Your task to perform on an android device: allow cookies in the chrome app Image 0: 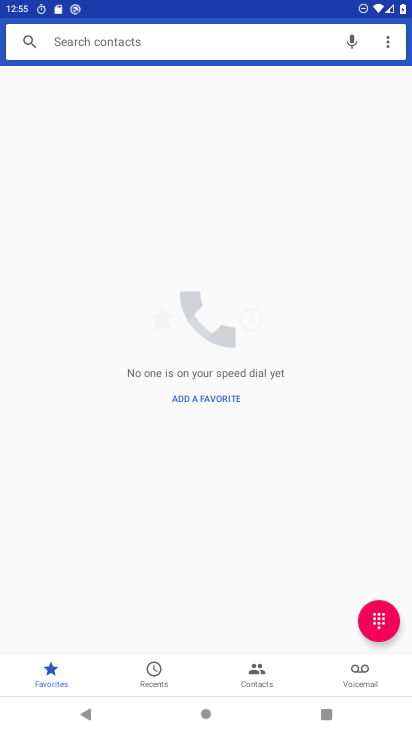
Step 0: press home button
Your task to perform on an android device: allow cookies in the chrome app Image 1: 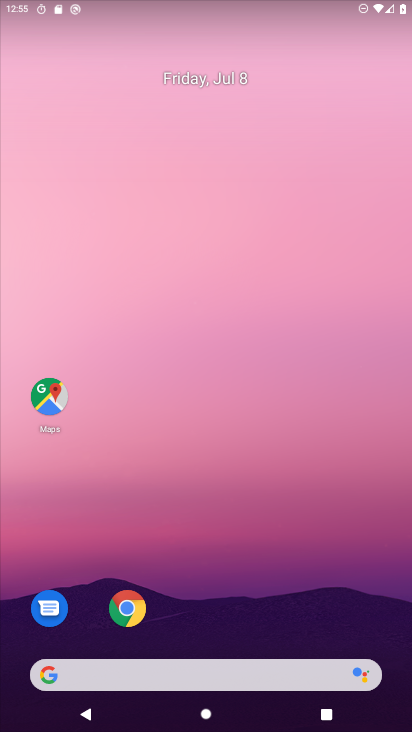
Step 1: drag from (236, 722) to (220, 644)
Your task to perform on an android device: allow cookies in the chrome app Image 2: 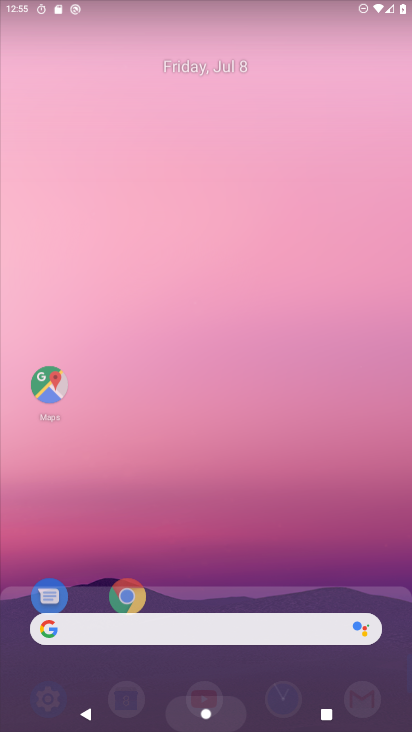
Step 2: drag from (259, 127) to (263, 47)
Your task to perform on an android device: allow cookies in the chrome app Image 3: 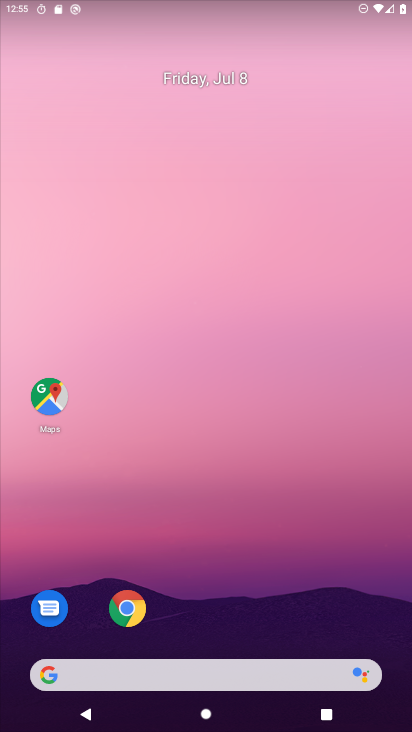
Step 3: drag from (244, 715) to (242, 663)
Your task to perform on an android device: allow cookies in the chrome app Image 4: 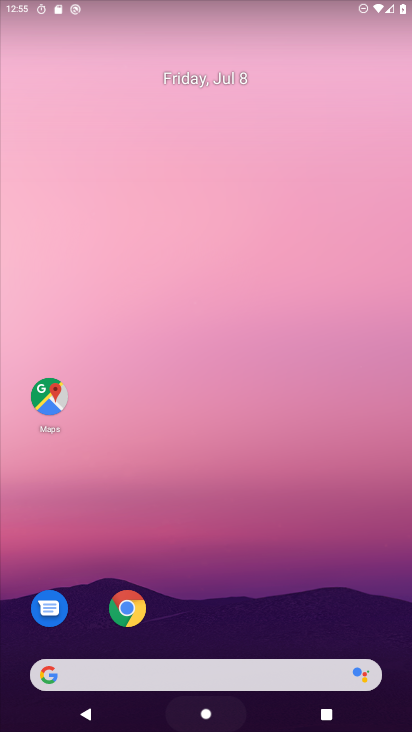
Step 4: click (260, 64)
Your task to perform on an android device: allow cookies in the chrome app Image 5: 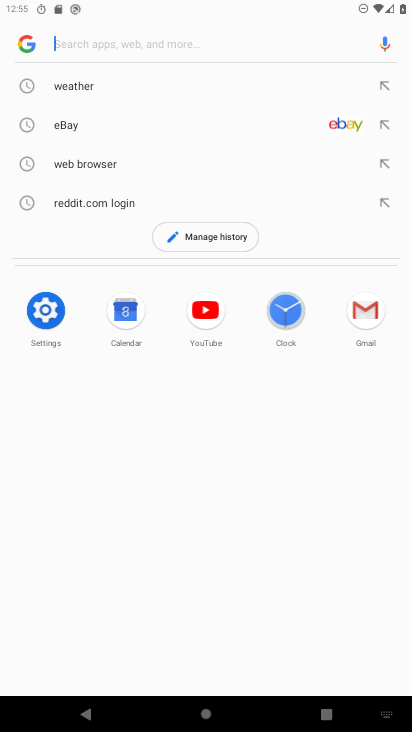
Step 5: press home button
Your task to perform on an android device: allow cookies in the chrome app Image 6: 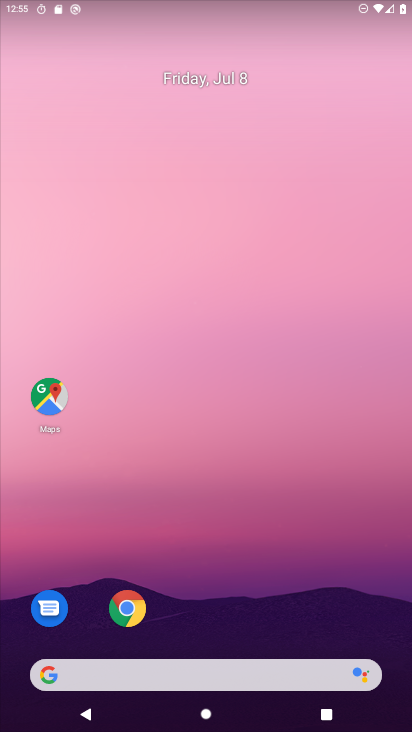
Step 6: click (127, 605)
Your task to perform on an android device: allow cookies in the chrome app Image 7: 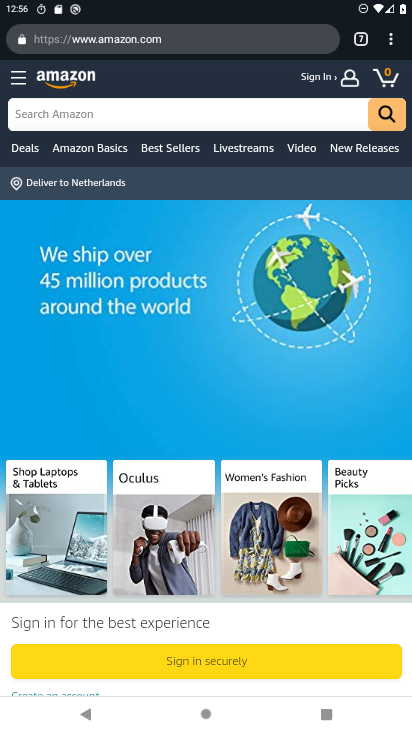
Step 7: click (391, 42)
Your task to perform on an android device: allow cookies in the chrome app Image 8: 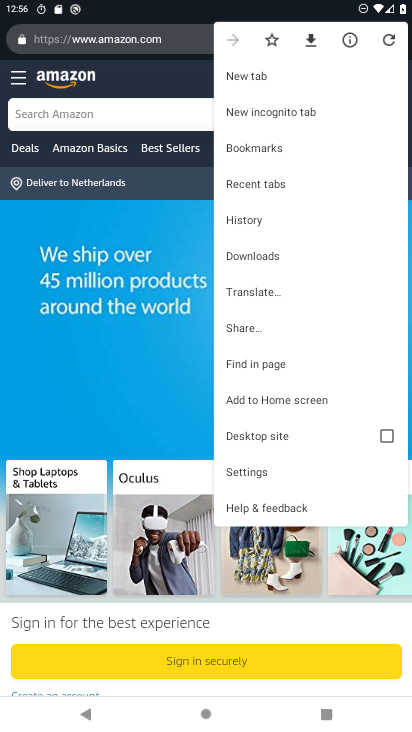
Step 8: click (251, 469)
Your task to perform on an android device: allow cookies in the chrome app Image 9: 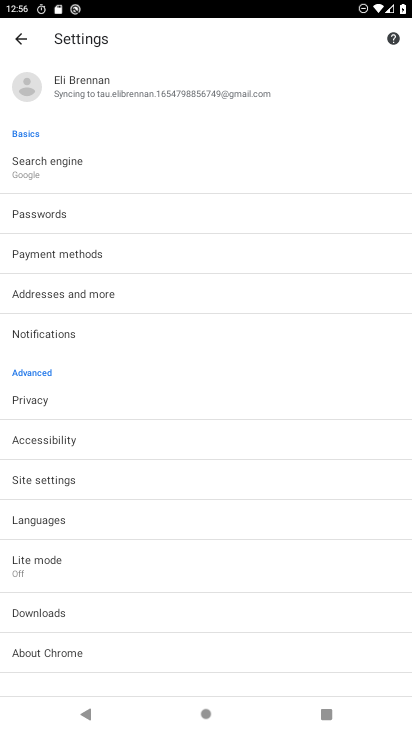
Step 9: drag from (71, 587) to (69, 317)
Your task to perform on an android device: allow cookies in the chrome app Image 10: 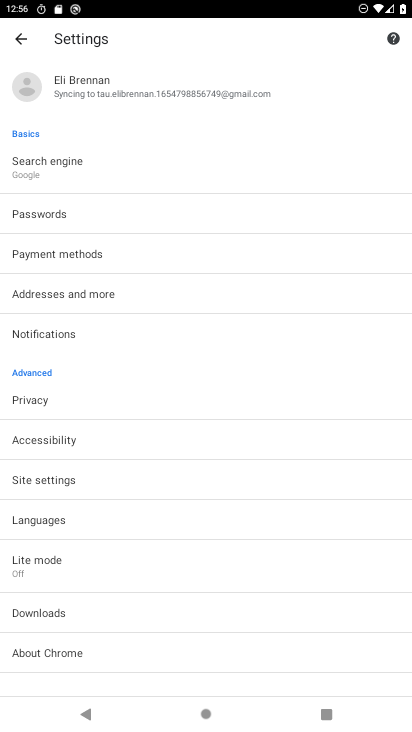
Step 10: click (74, 479)
Your task to perform on an android device: allow cookies in the chrome app Image 11: 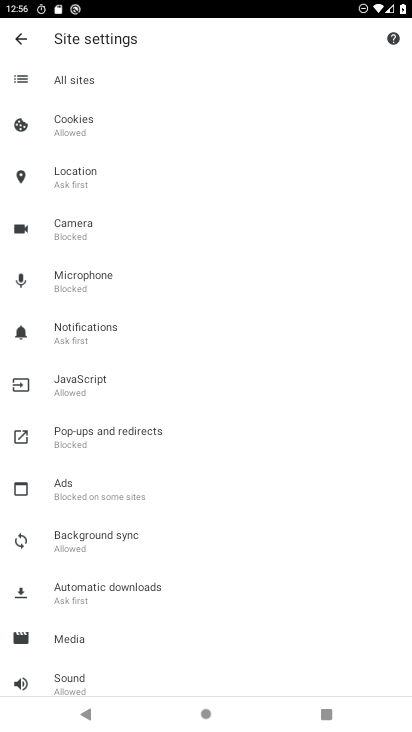
Step 11: click (84, 115)
Your task to perform on an android device: allow cookies in the chrome app Image 12: 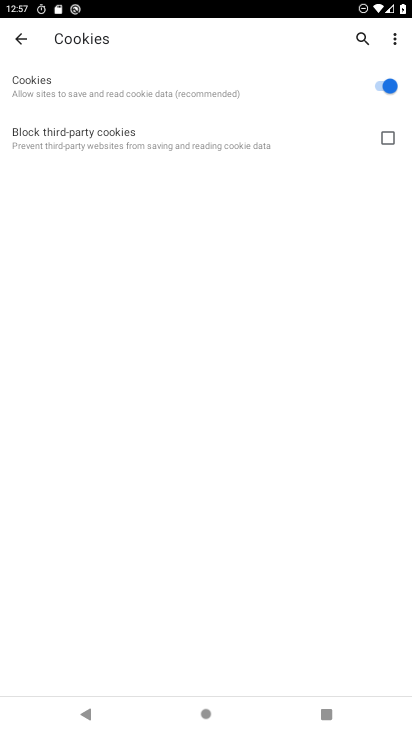
Step 12: task complete